Your task to perform on an android device: Open Chrome and go to settings Image 0: 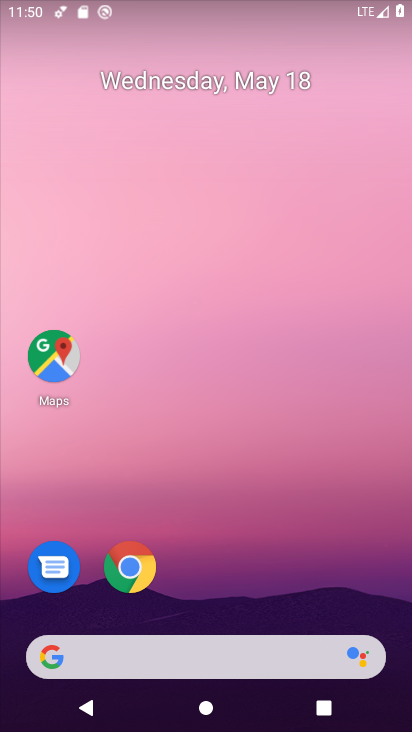
Step 0: drag from (289, 555) to (312, 6)
Your task to perform on an android device: Open Chrome and go to settings Image 1: 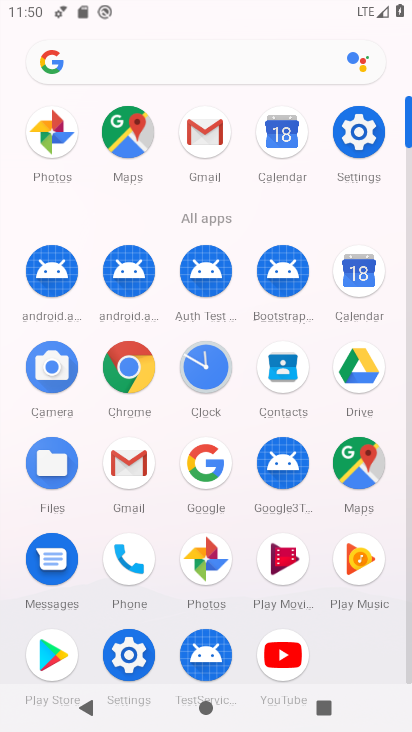
Step 1: click (116, 365)
Your task to perform on an android device: Open Chrome and go to settings Image 2: 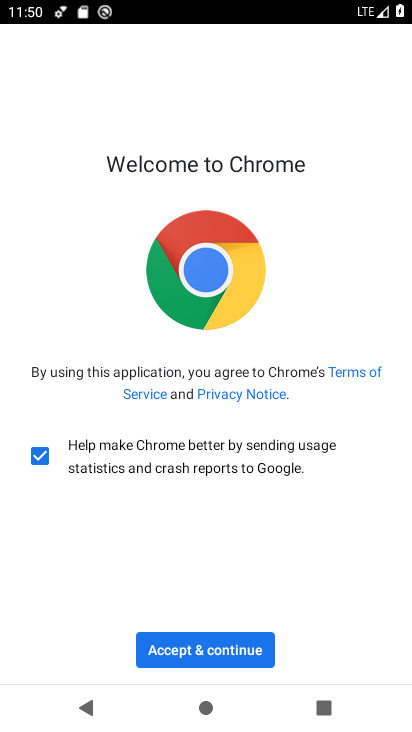
Step 2: click (266, 644)
Your task to perform on an android device: Open Chrome and go to settings Image 3: 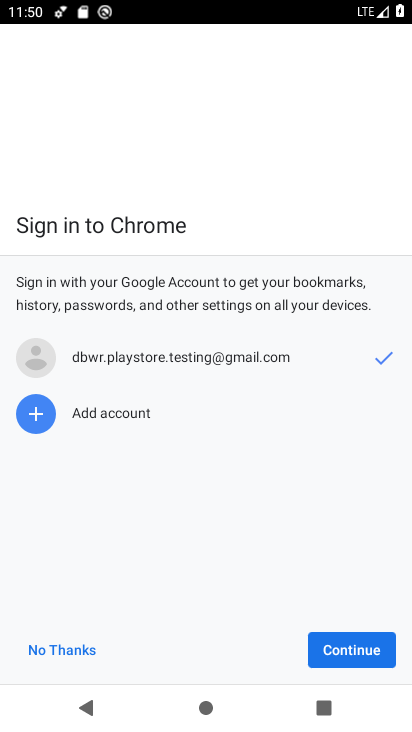
Step 3: click (48, 648)
Your task to perform on an android device: Open Chrome and go to settings Image 4: 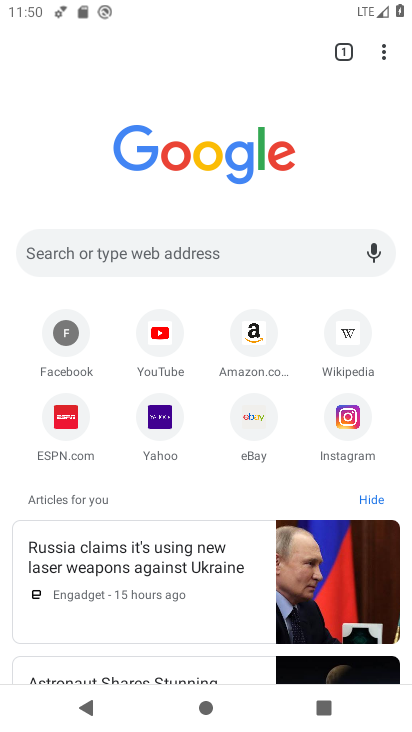
Step 4: task complete